Your task to perform on an android device: open a new tab in the chrome app Image 0: 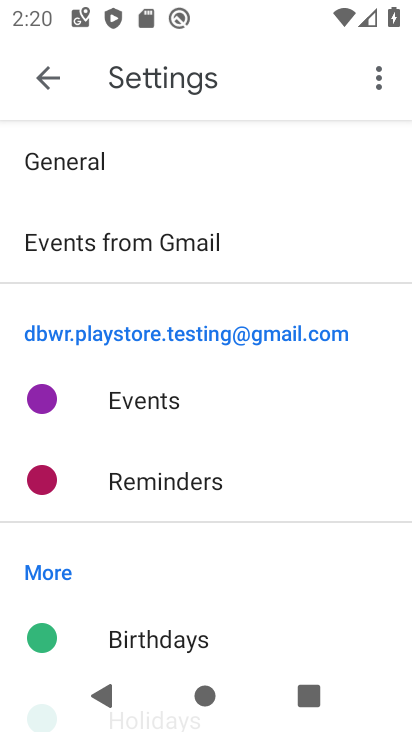
Step 0: press home button
Your task to perform on an android device: open a new tab in the chrome app Image 1: 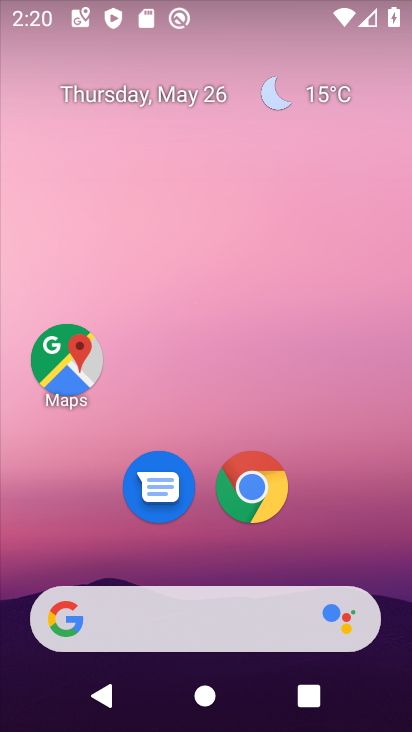
Step 1: click (234, 513)
Your task to perform on an android device: open a new tab in the chrome app Image 2: 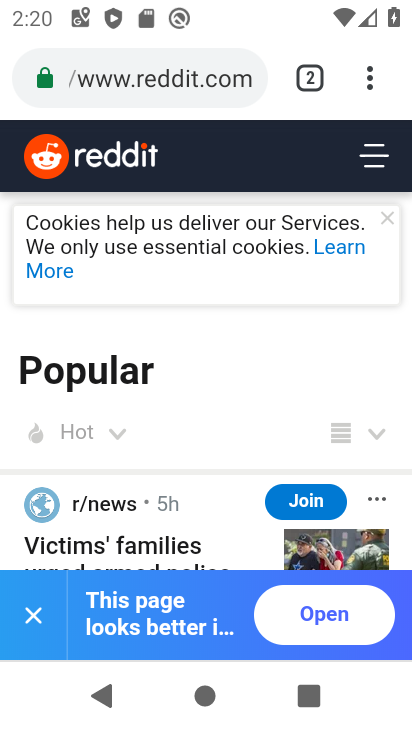
Step 2: click (309, 78)
Your task to perform on an android device: open a new tab in the chrome app Image 3: 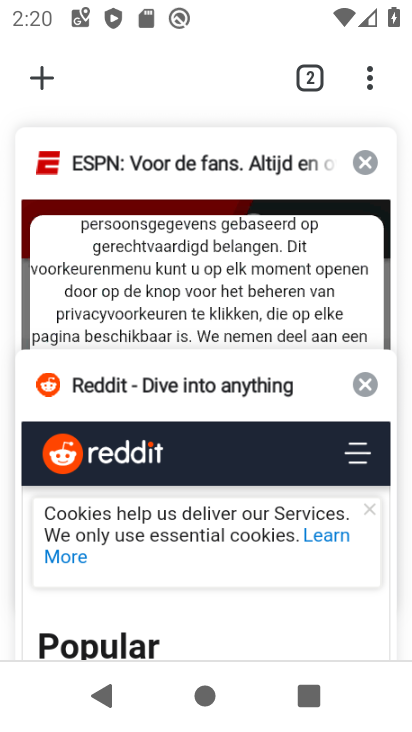
Step 3: click (47, 82)
Your task to perform on an android device: open a new tab in the chrome app Image 4: 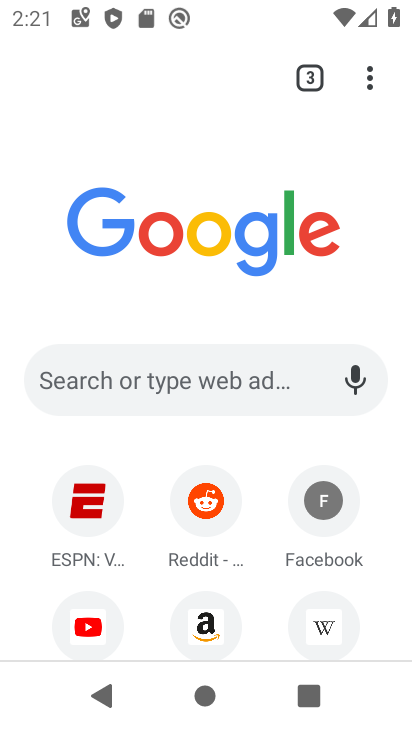
Step 4: task complete